Your task to perform on an android device: Open calendar and show me the second week of next month Image 0: 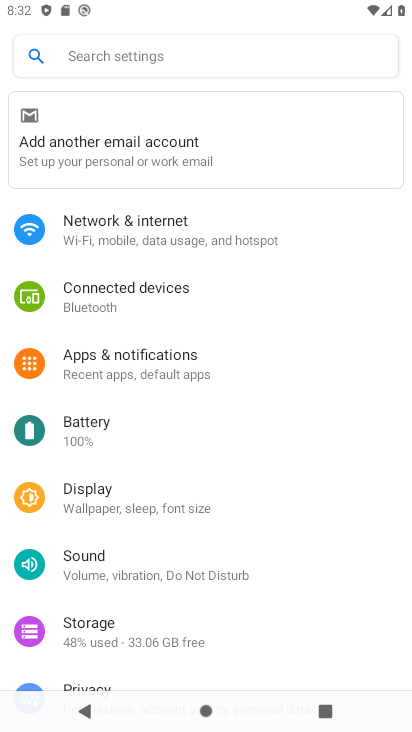
Step 0: press home button
Your task to perform on an android device: Open calendar and show me the second week of next month Image 1: 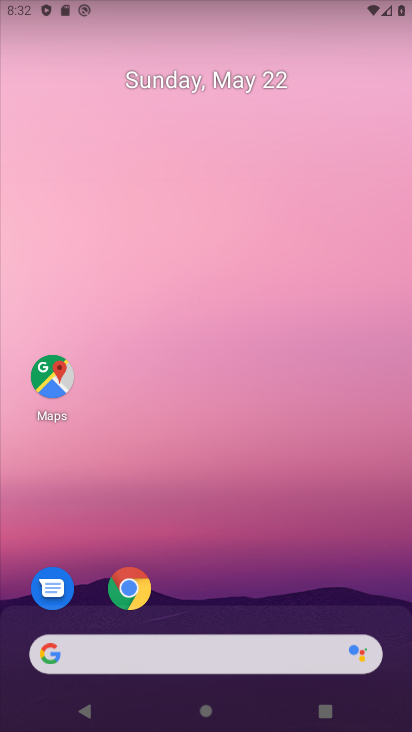
Step 1: drag from (260, 598) to (234, 69)
Your task to perform on an android device: Open calendar and show me the second week of next month Image 2: 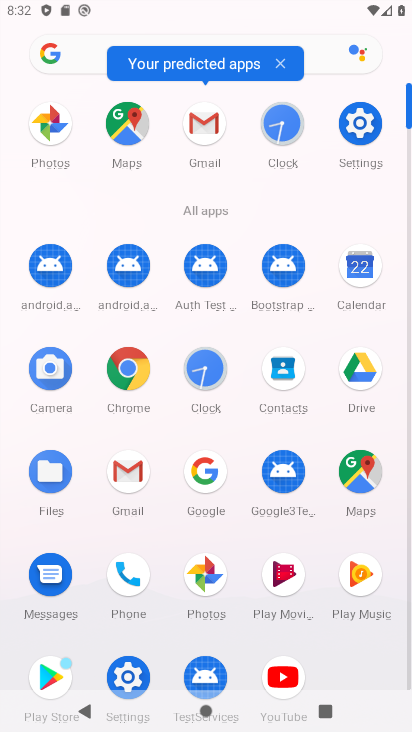
Step 2: click (370, 268)
Your task to perform on an android device: Open calendar and show me the second week of next month Image 3: 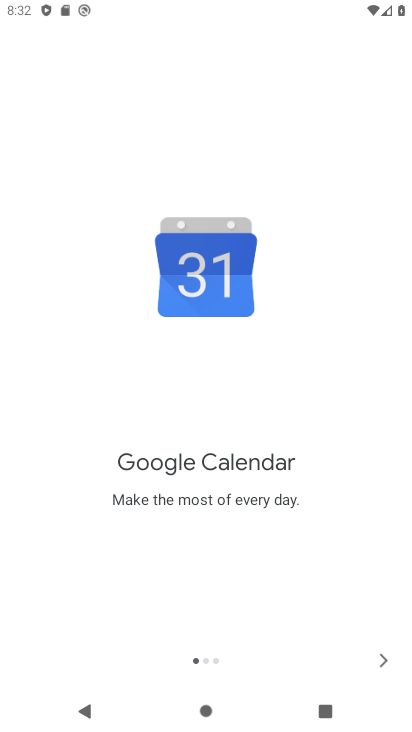
Step 3: click (370, 654)
Your task to perform on an android device: Open calendar and show me the second week of next month Image 4: 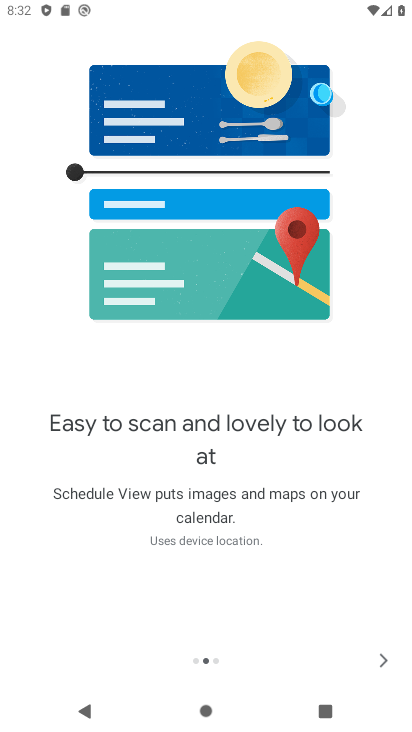
Step 4: click (380, 658)
Your task to perform on an android device: Open calendar and show me the second week of next month Image 5: 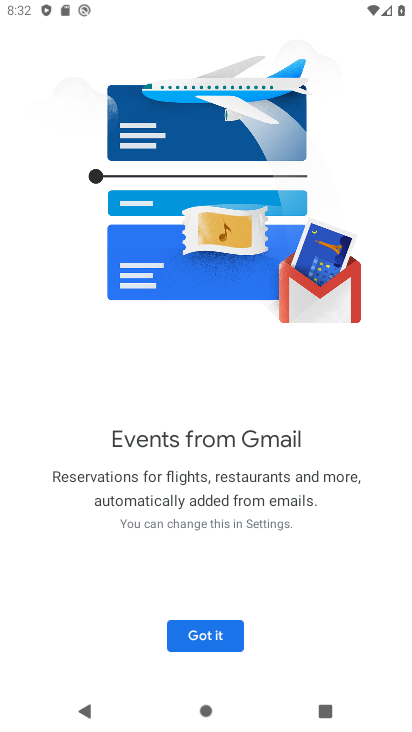
Step 5: click (194, 639)
Your task to perform on an android device: Open calendar and show me the second week of next month Image 6: 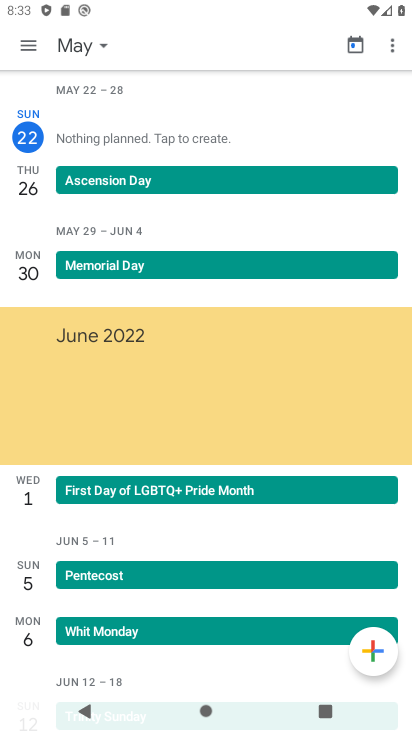
Step 6: click (79, 52)
Your task to perform on an android device: Open calendar and show me the second week of next month Image 7: 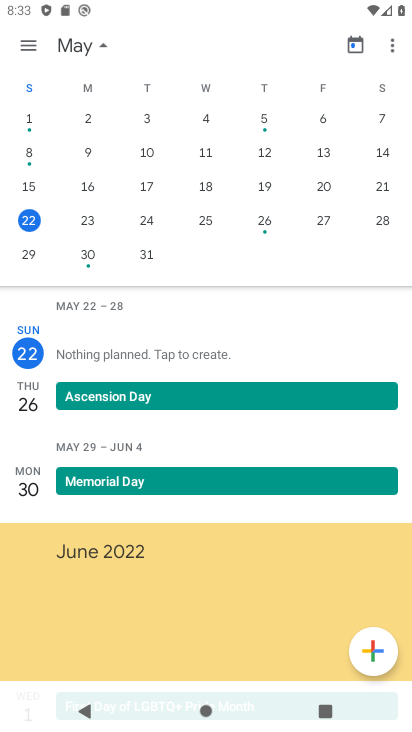
Step 7: drag from (334, 219) to (15, 280)
Your task to perform on an android device: Open calendar and show me the second week of next month Image 8: 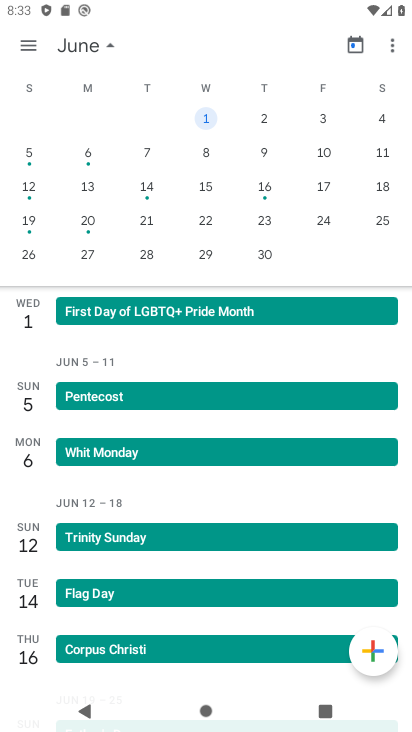
Step 8: click (31, 168)
Your task to perform on an android device: Open calendar and show me the second week of next month Image 9: 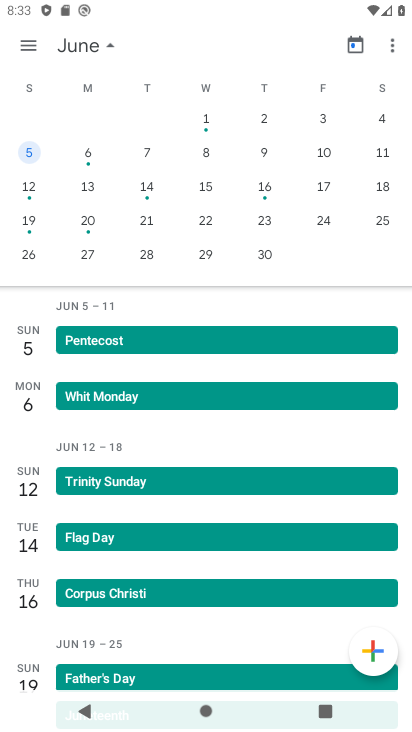
Step 9: task complete